Your task to perform on an android device: change alarm snooze length Image 0: 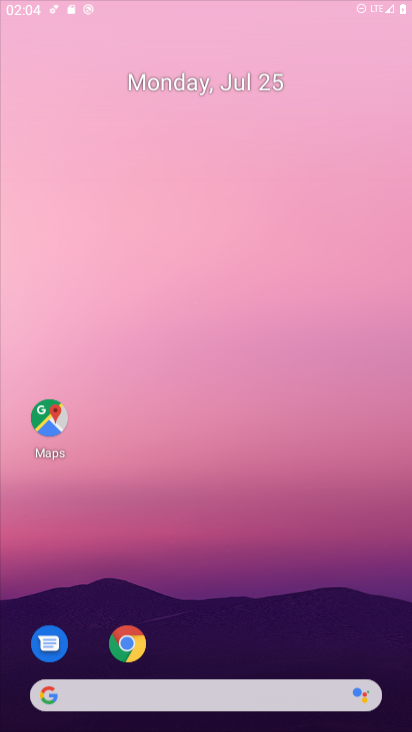
Step 0: click (234, 392)
Your task to perform on an android device: change alarm snooze length Image 1: 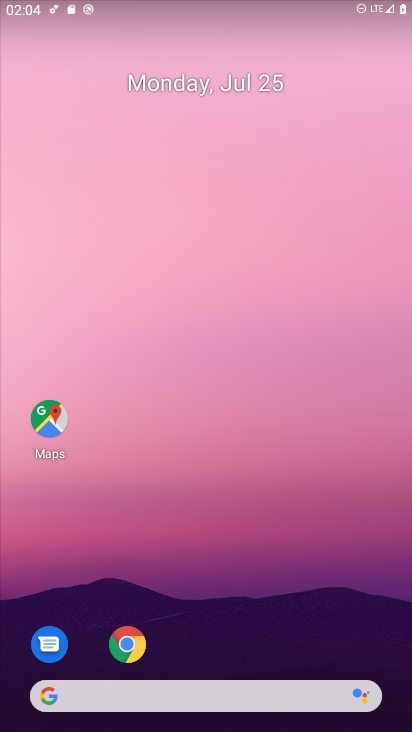
Step 1: drag from (222, 724) to (193, 274)
Your task to perform on an android device: change alarm snooze length Image 2: 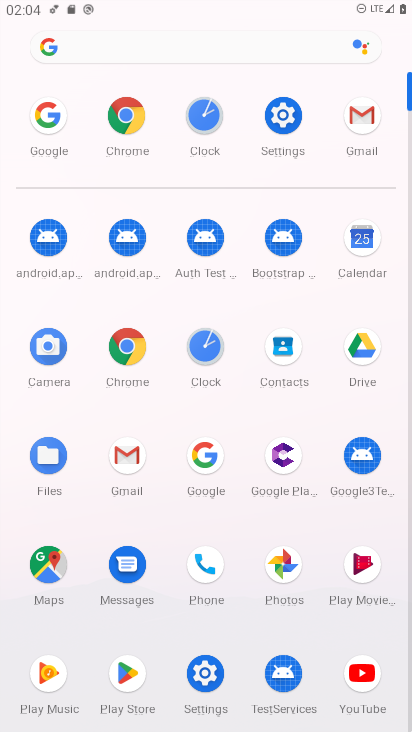
Step 2: click (203, 356)
Your task to perform on an android device: change alarm snooze length Image 3: 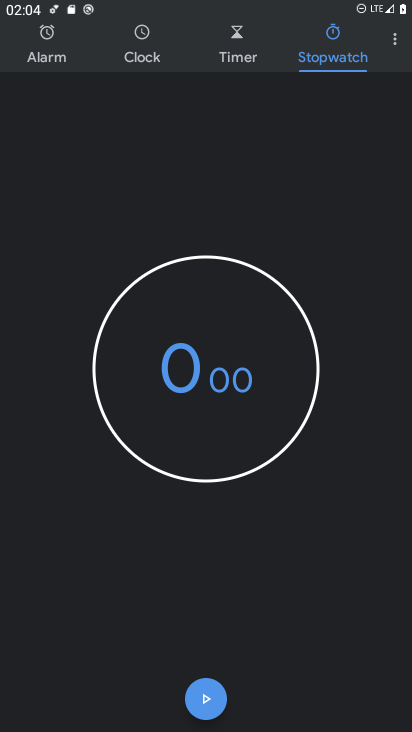
Step 3: click (397, 43)
Your task to perform on an android device: change alarm snooze length Image 4: 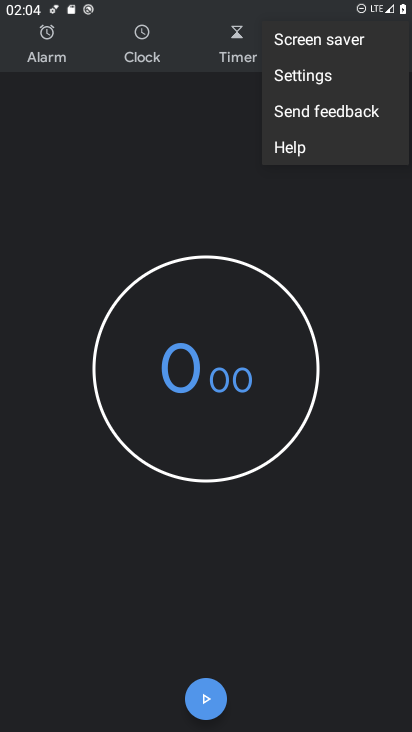
Step 4: click (303, 73)
Your task to perform on an android device: change alarm snooze length Image 5: 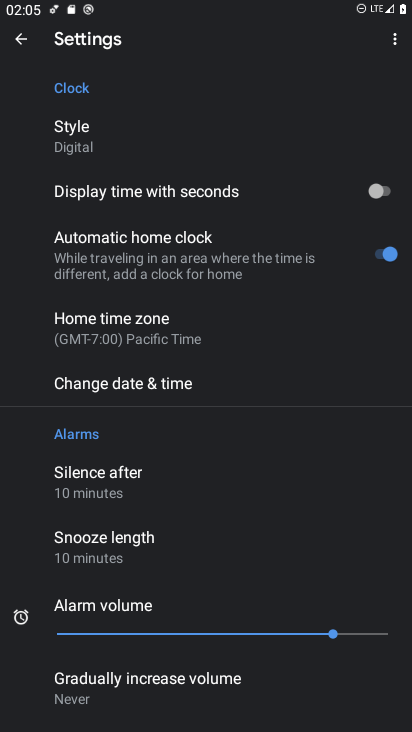
Step 5: drag from (173, 584) to (179, 275)
Your task to perform on an android device: change alarm snooze length Image 6: 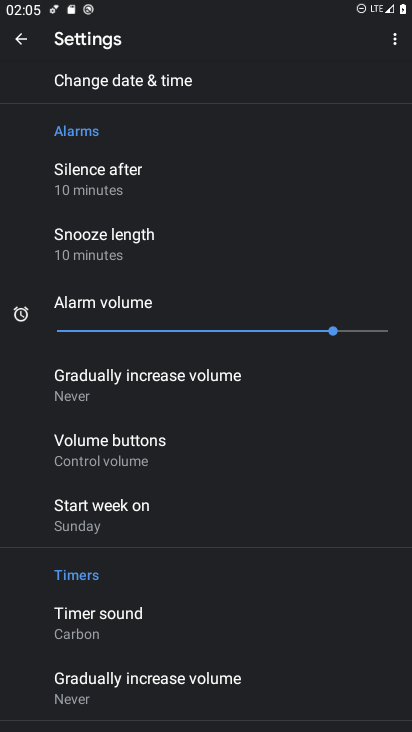
Step 6: drag from (144, 624) to (146, 405)
Your task to perform on an android device: change alarm snooze length Image 7: 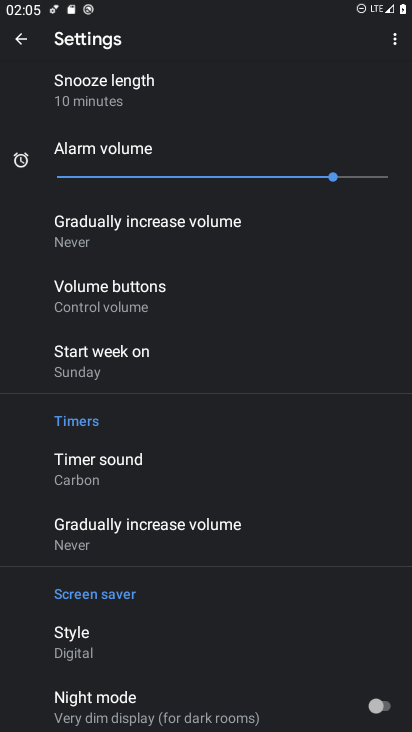
Step 7: drag from (203, 264) to (197, 554)
Your task to perform on an android device: change alarm snooze length Image 8: 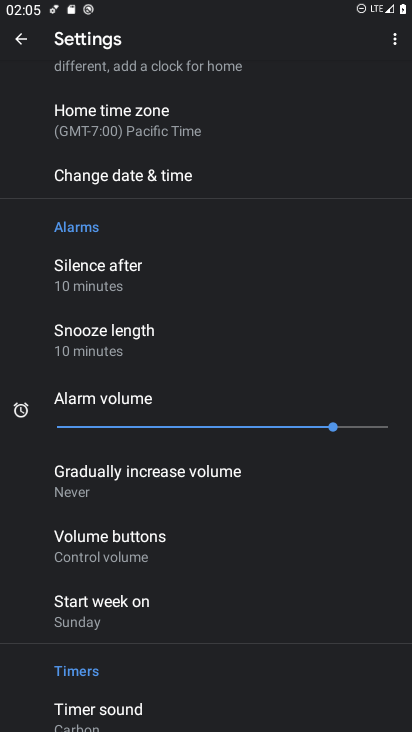
Step 8: click (137, 328)
Your task to perform on an android device: change alarm snooze length Image 9: 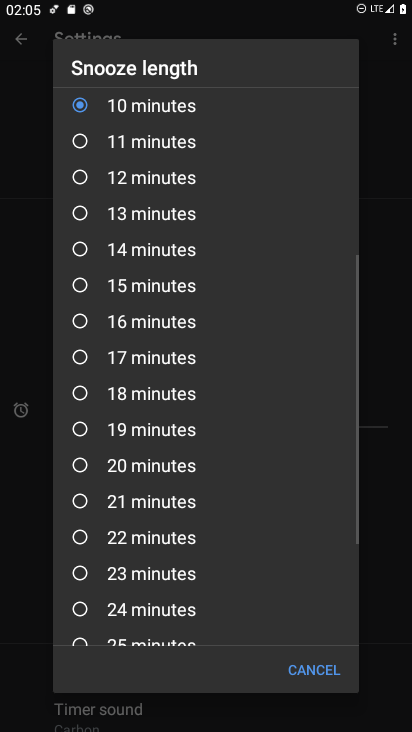
Step 9: click (84, 463)
Your task to perform on an android device: change alarm snooze length Image 10: 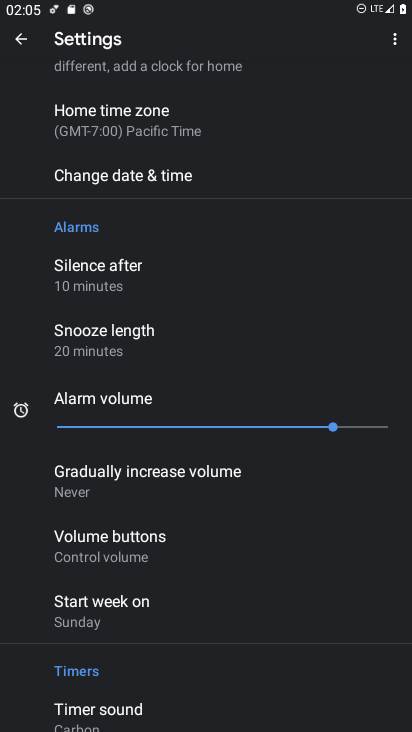
Step 10: task complete